Your task to perform on an android device: toggle pop-ups in chrome Image 0: 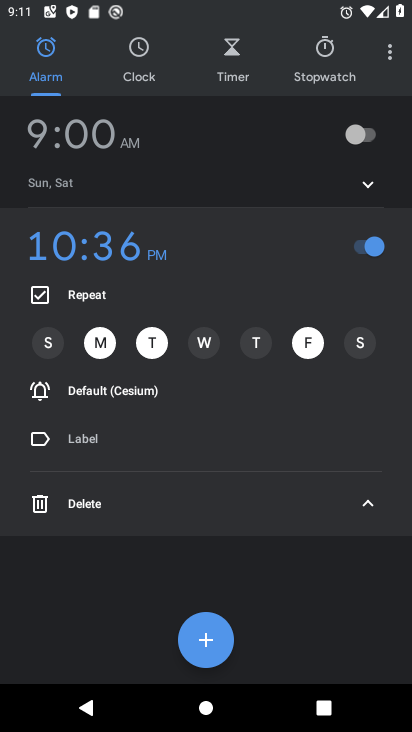
Step 0: press home button
Your task to perform on an android device: toggle pop-ups in chrome Image 1: 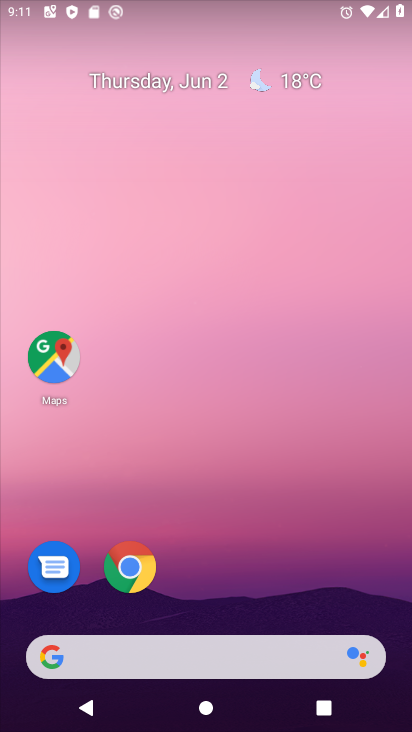
Step 1: click (134, 565)
Your task to perform on an android device: toggle pop-ups in chrome Image 2: 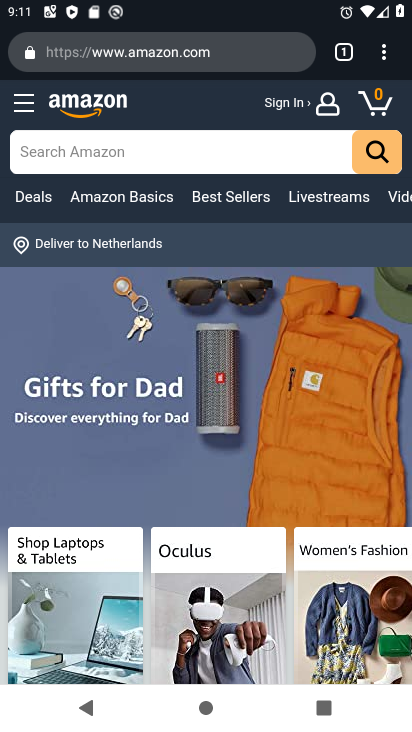
Step 2: click (386, 60)
Your task to perform on an android device: toggle pop-ups in chrome Image 3: 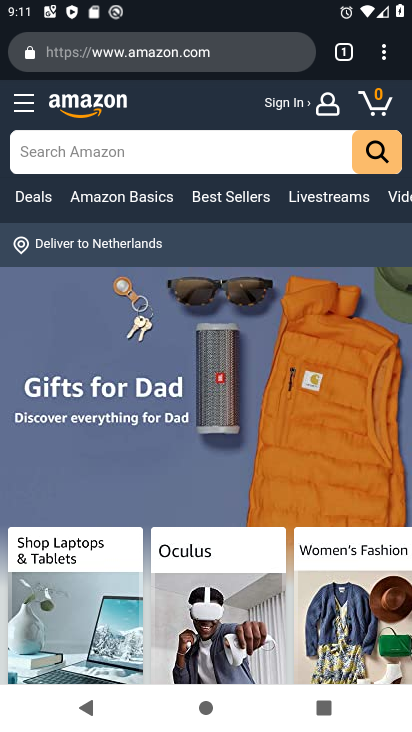
Step 3: click (385, 61)
Your task to perform on an android device: toggle pop-ups in chrome Image 4: 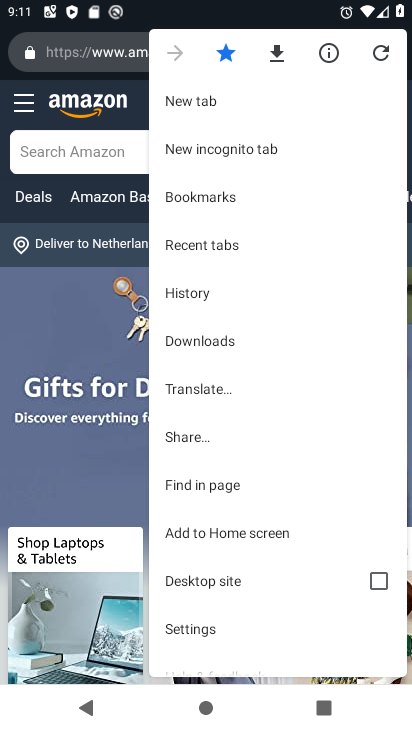
Step 4: click (189, 630)
Your task to perform on an android device: toggle pop-ups in chrome Image 5: 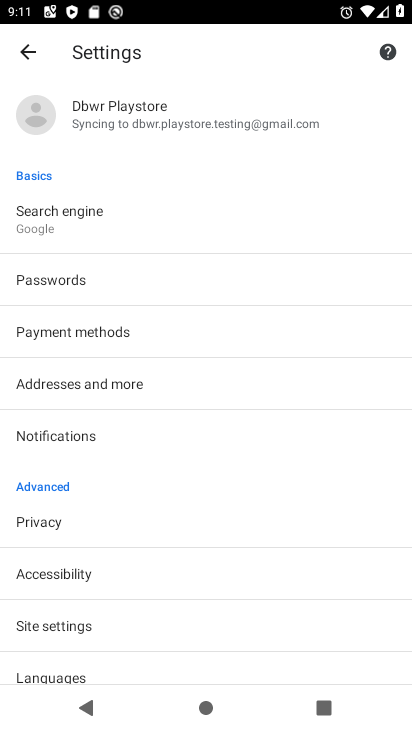
Step 5: drag from (60, 432) to (91, 249)
Your task to perform on an android device: toggle pop-ups in chrome Image 6: 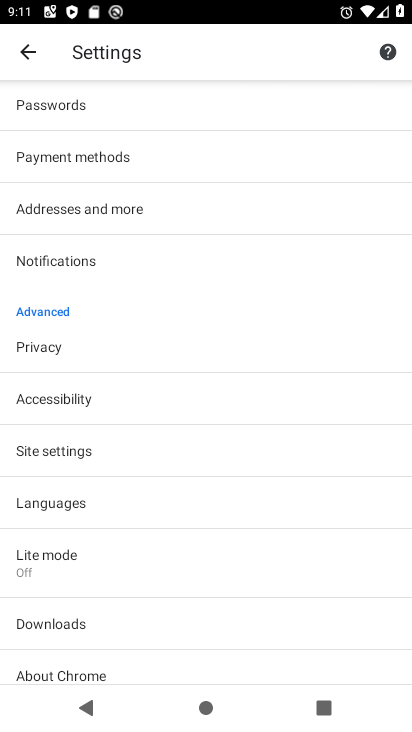
Step 6: drag from (71, 634) to (87, 341)
Your task to perform on an android device: toggle pop-ups in chrome Image 7: 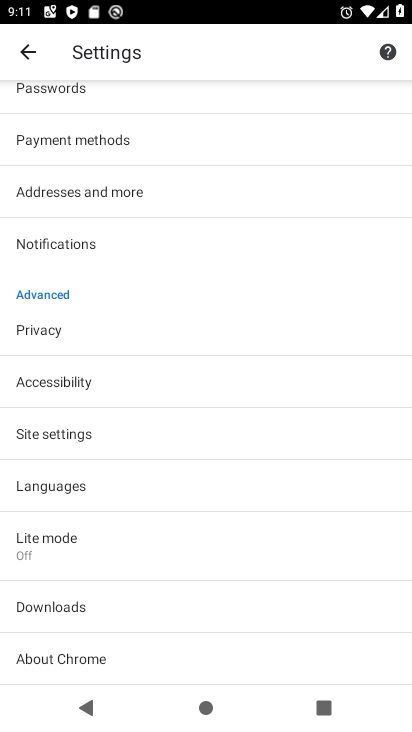
Step 7: click (59, 425)
Your task to perform on an android device: toggle pop-ups in chrome Image 8: 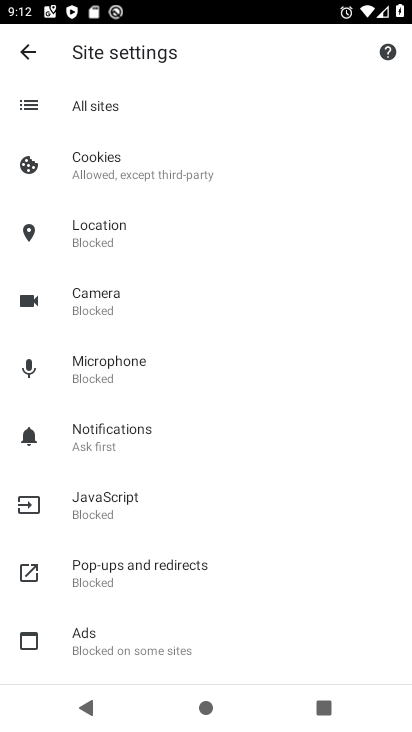
Step 8: click (116, 575)
Your task to perform on an android device: toggle pop-ups in chrome Image 9: 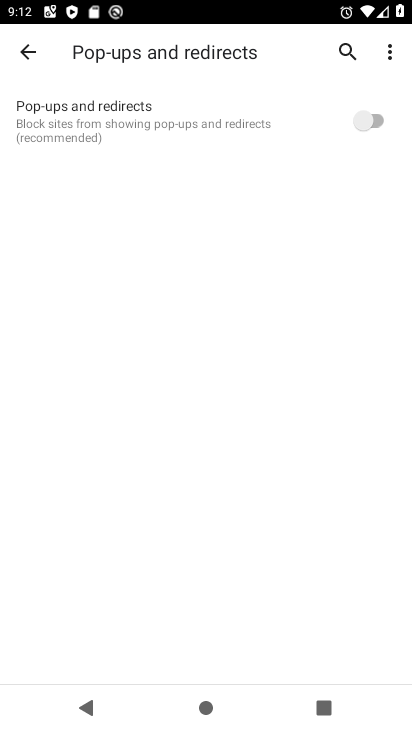
Step 9: click (387, 119)
Your task to perform on an android device: toggle pop-ups in chrome Image 10: 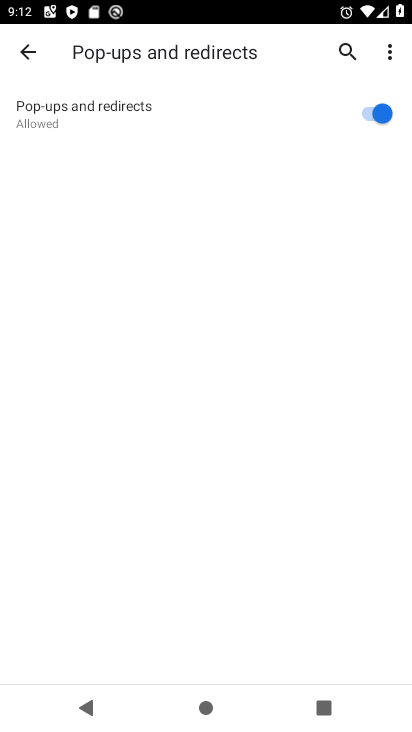
Step 10: task complete